Your task to perform on an android device: How do I get to the nearest Starbucks? Image 0: 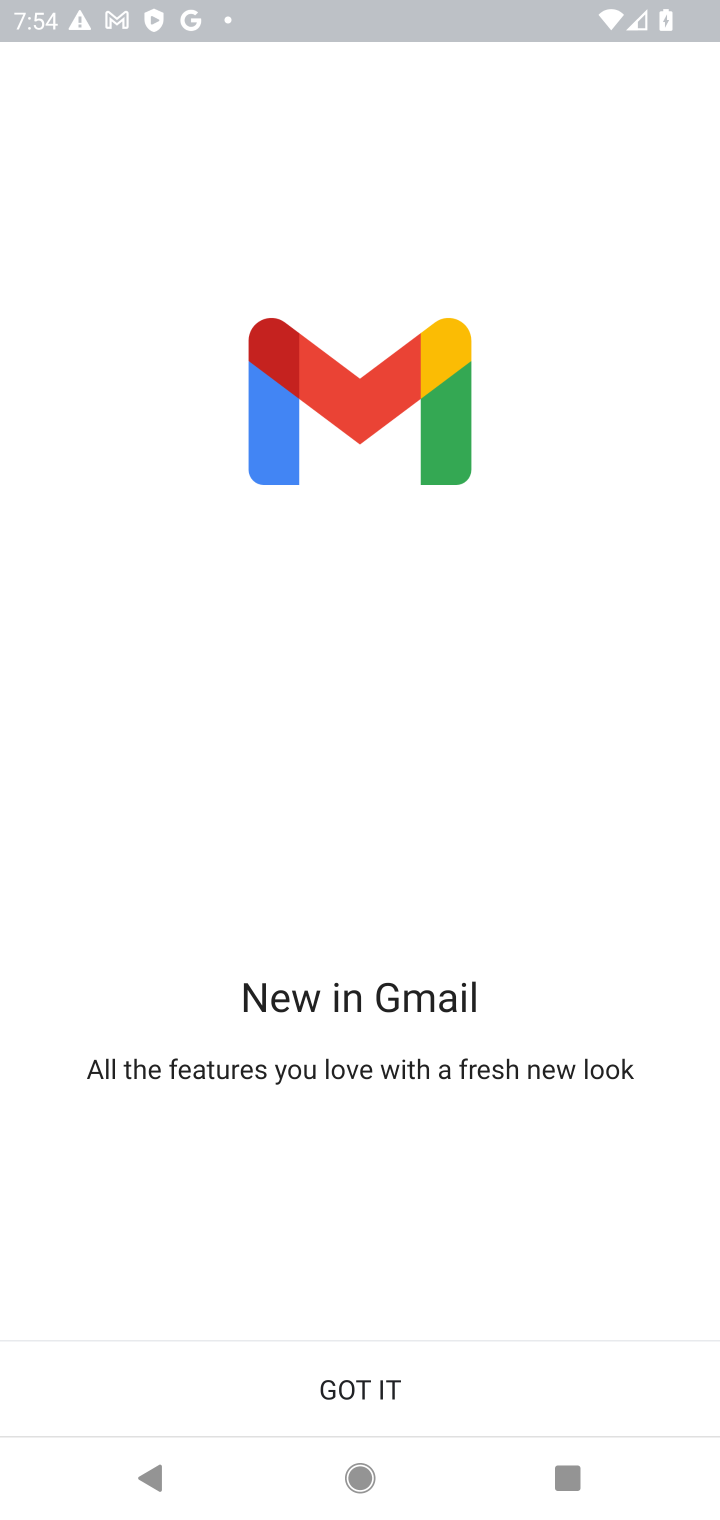
Step 0: press home button
Your task to perform on an android device: How do I get to the nearest Starbucks? Image 1: 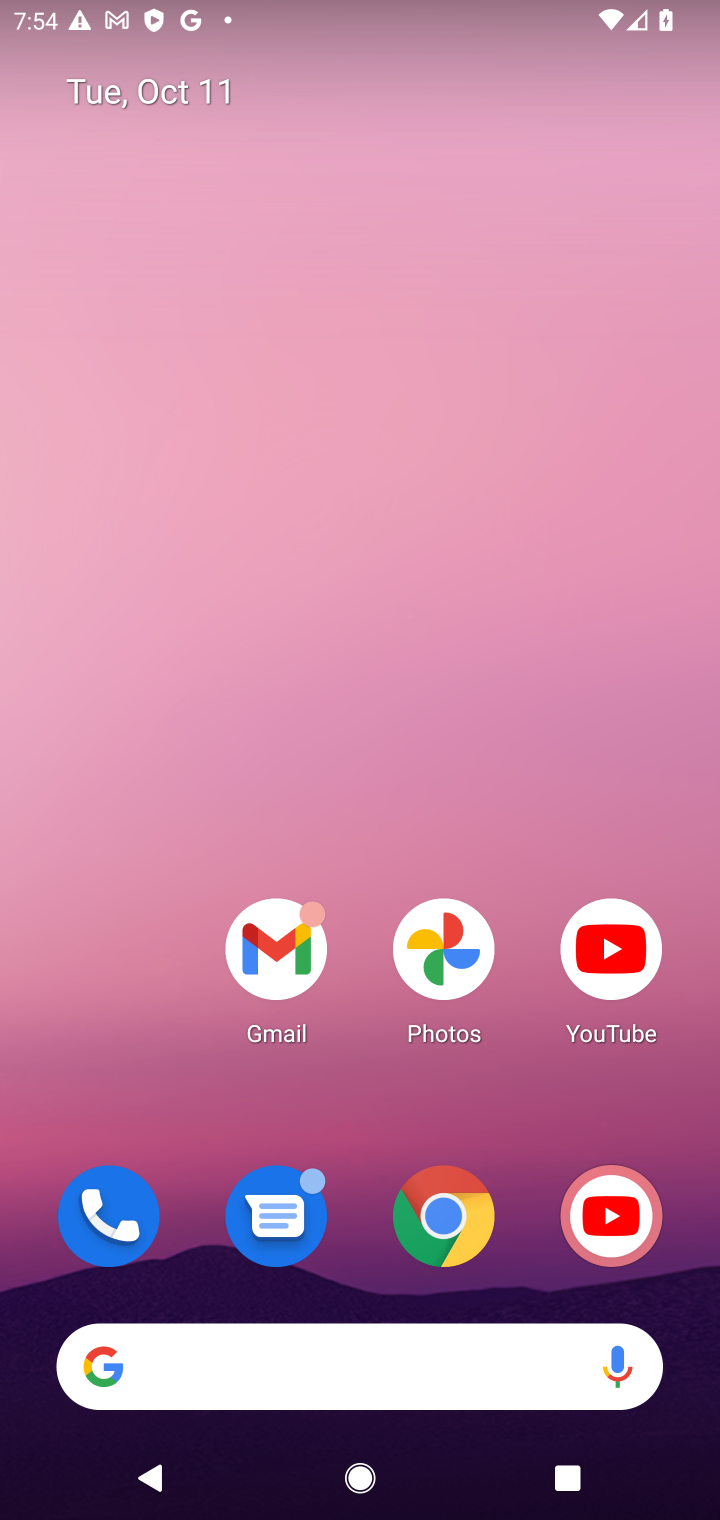
Step 1: click (459, 1223)
Your task to perform on an android device: How do I get to the nearest Starbucks? Image 2: 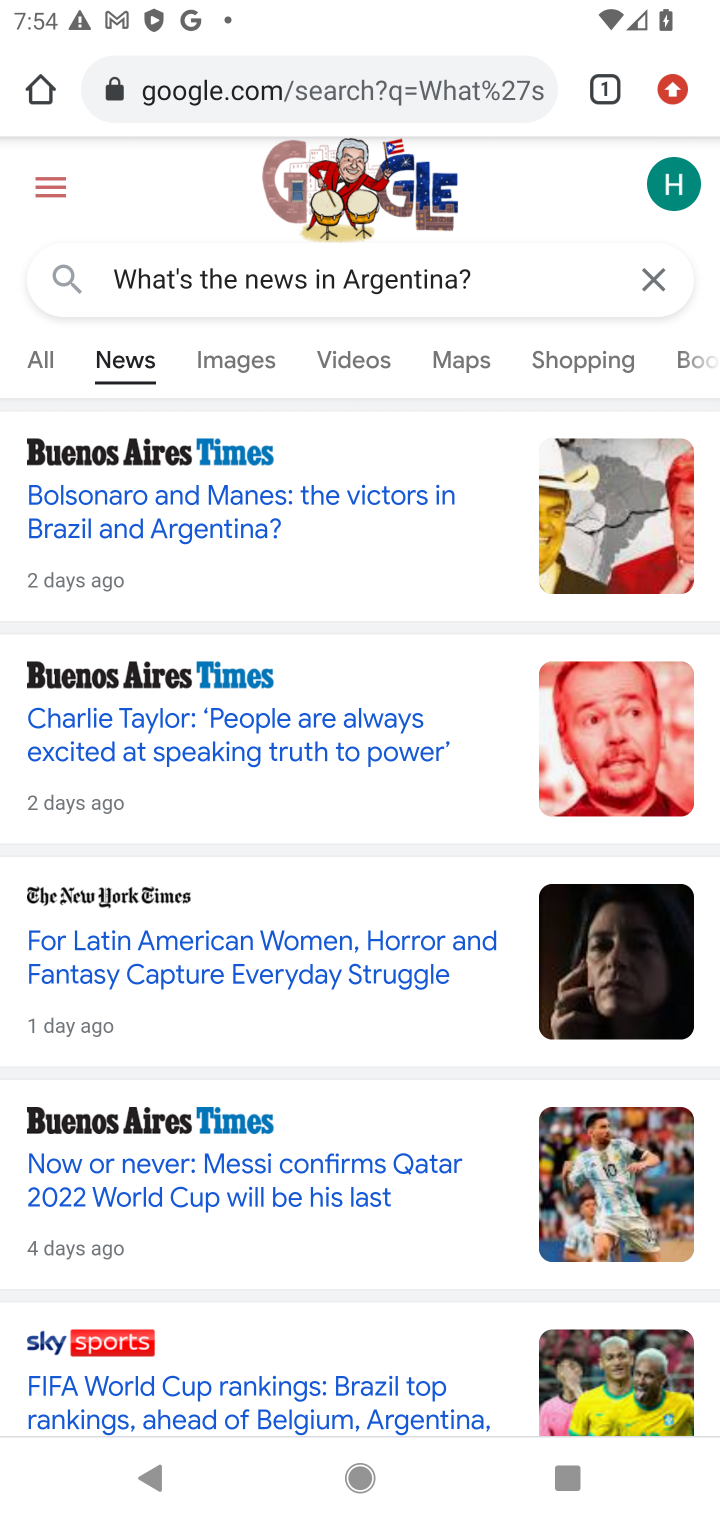
Step 2: click (532, 286)
Your task to perform on an android device: How do I get to the nearest Starbucks? Image 3: 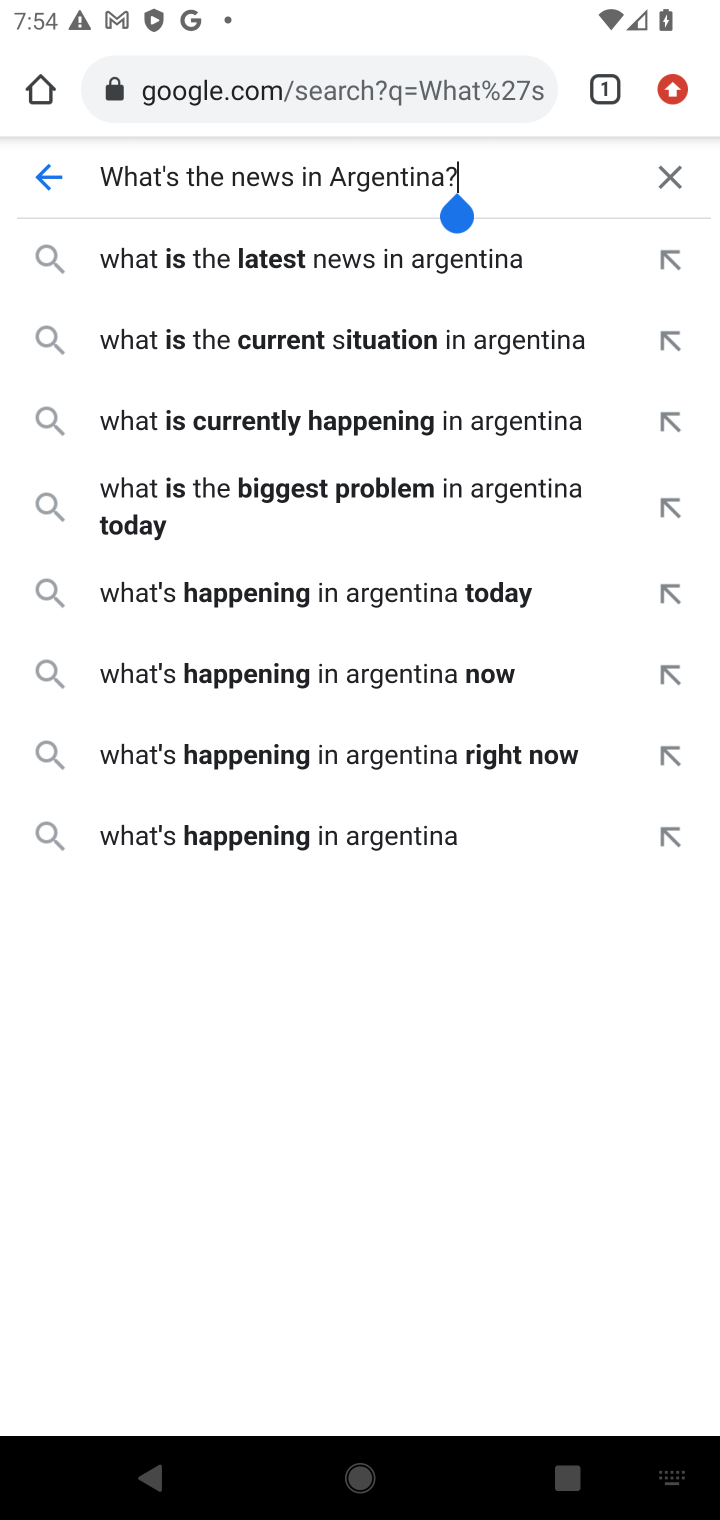
Step 3: click (672, 176)
Your task to perform on an android device: How do I get to the nearest Starbucks? Image 4: 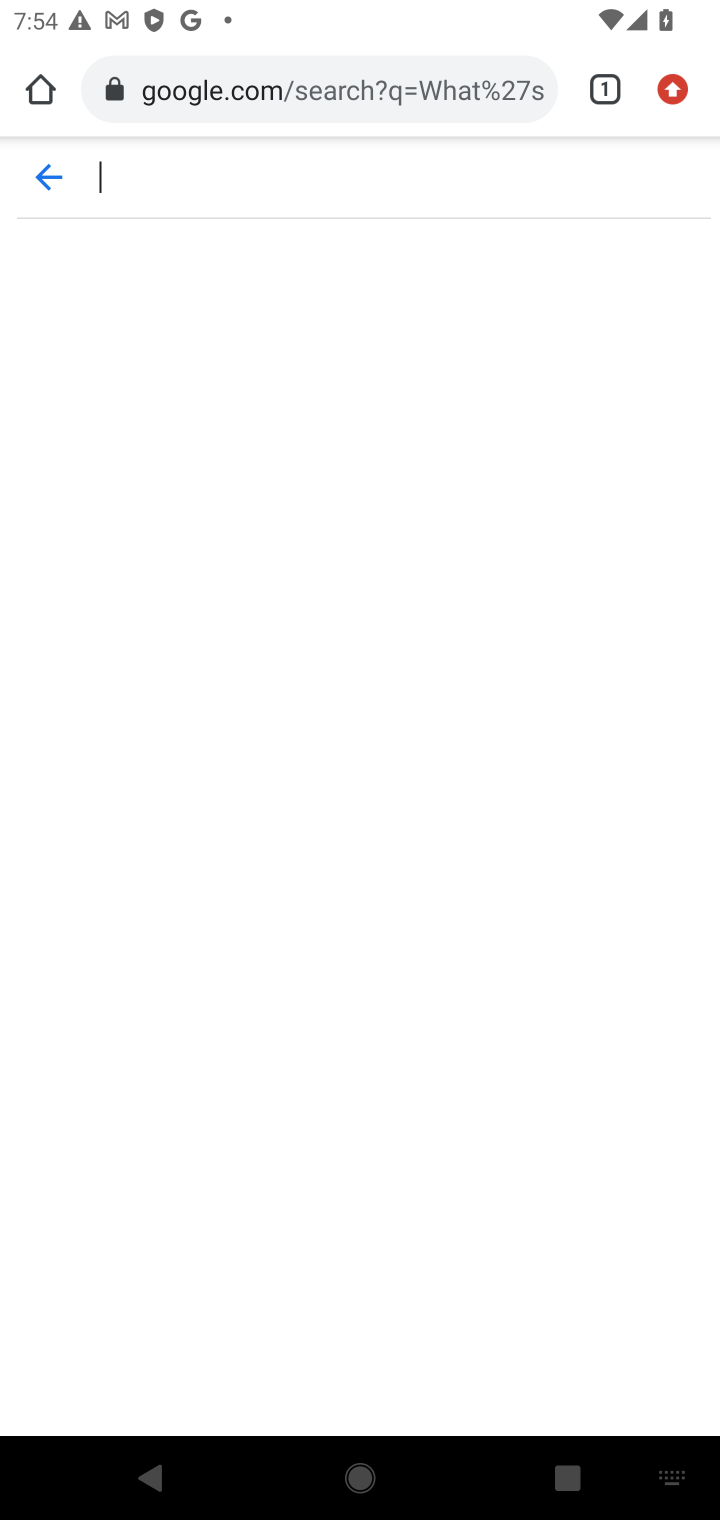
Step 4: type "How do I get to the nearest Starbucks?"
Your task to perform on an android device: How do I get to the nearest Starbucks? Image 5: 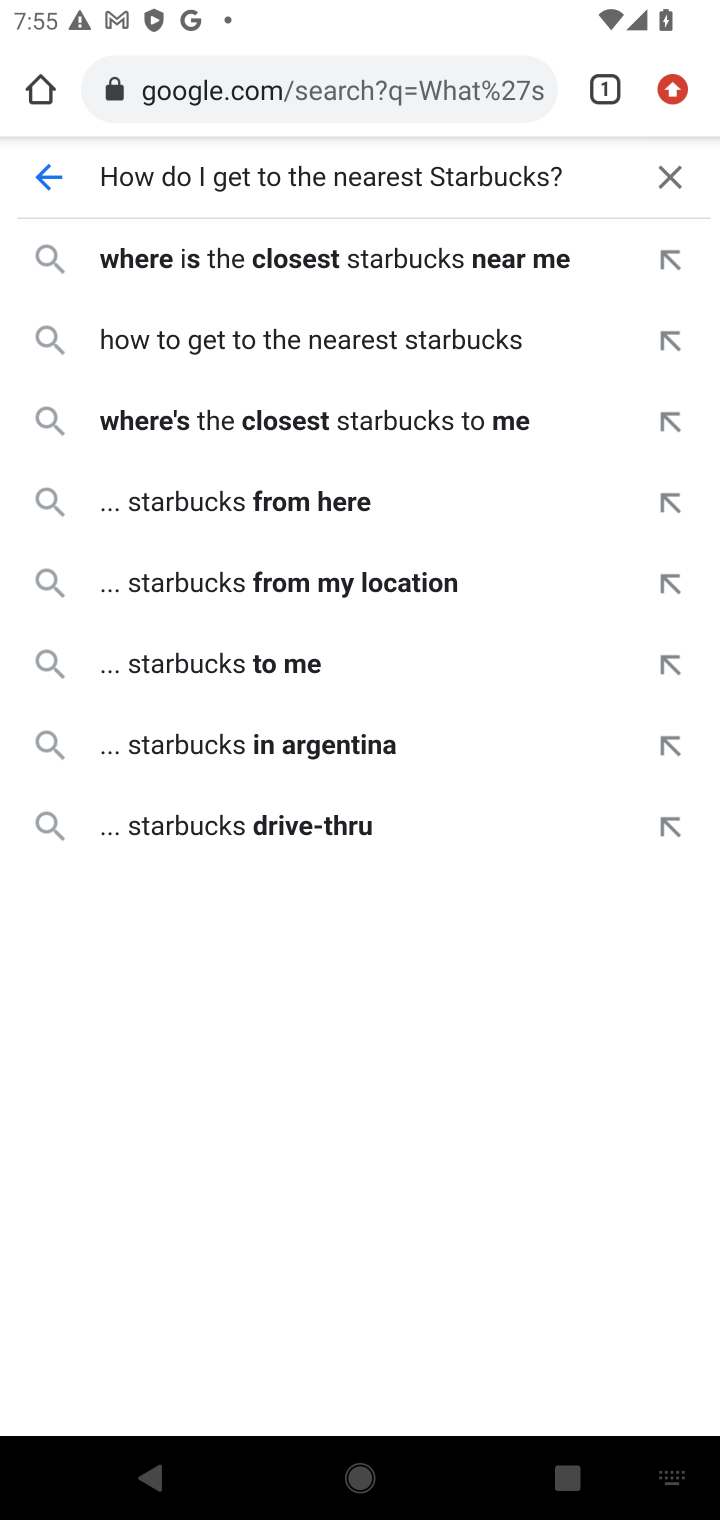
Step 5: press enter
Your task to perform on an android device: How do I get to the nearest Starbucks? Image 6: 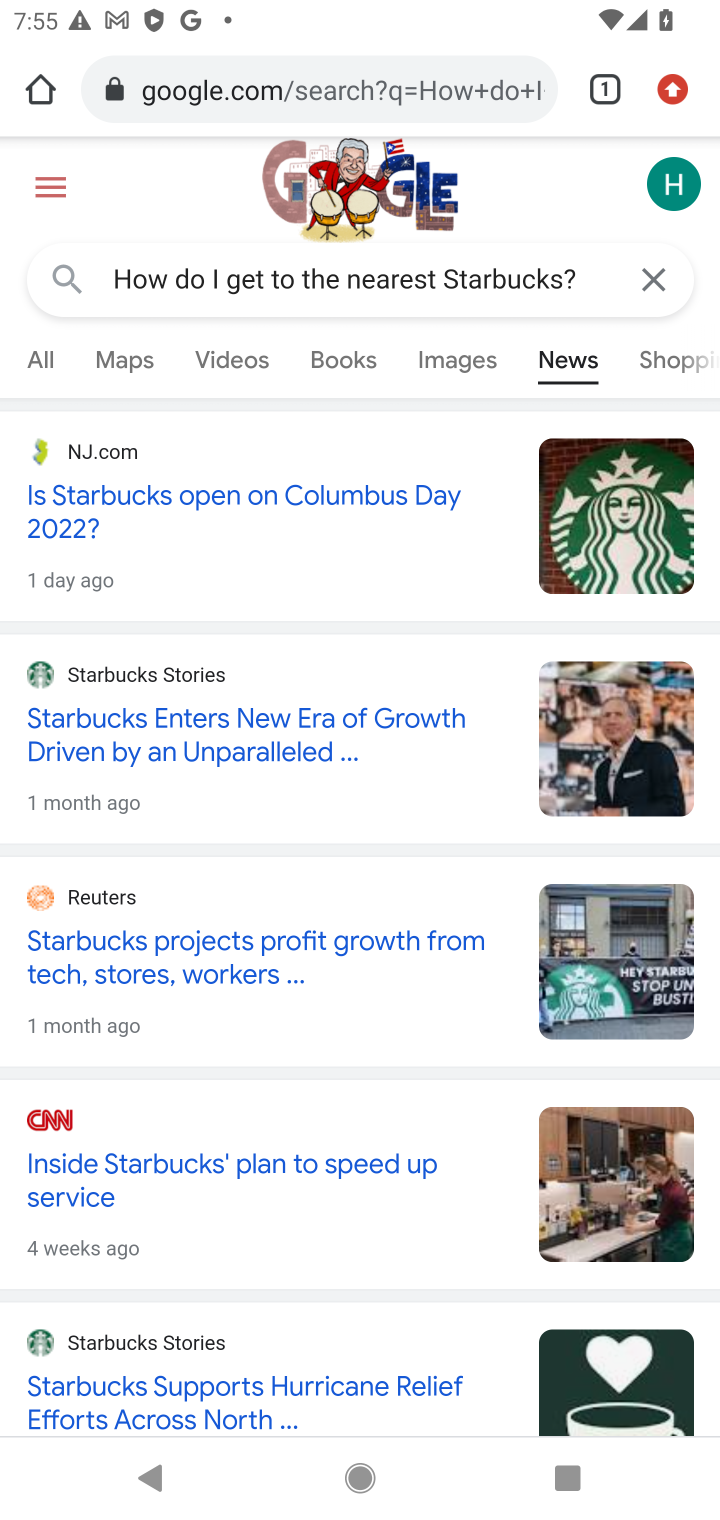
Step 6: click (33, 377)
Your task to perform on an android device: How do I get to the nearest Starbucks? Image 7: 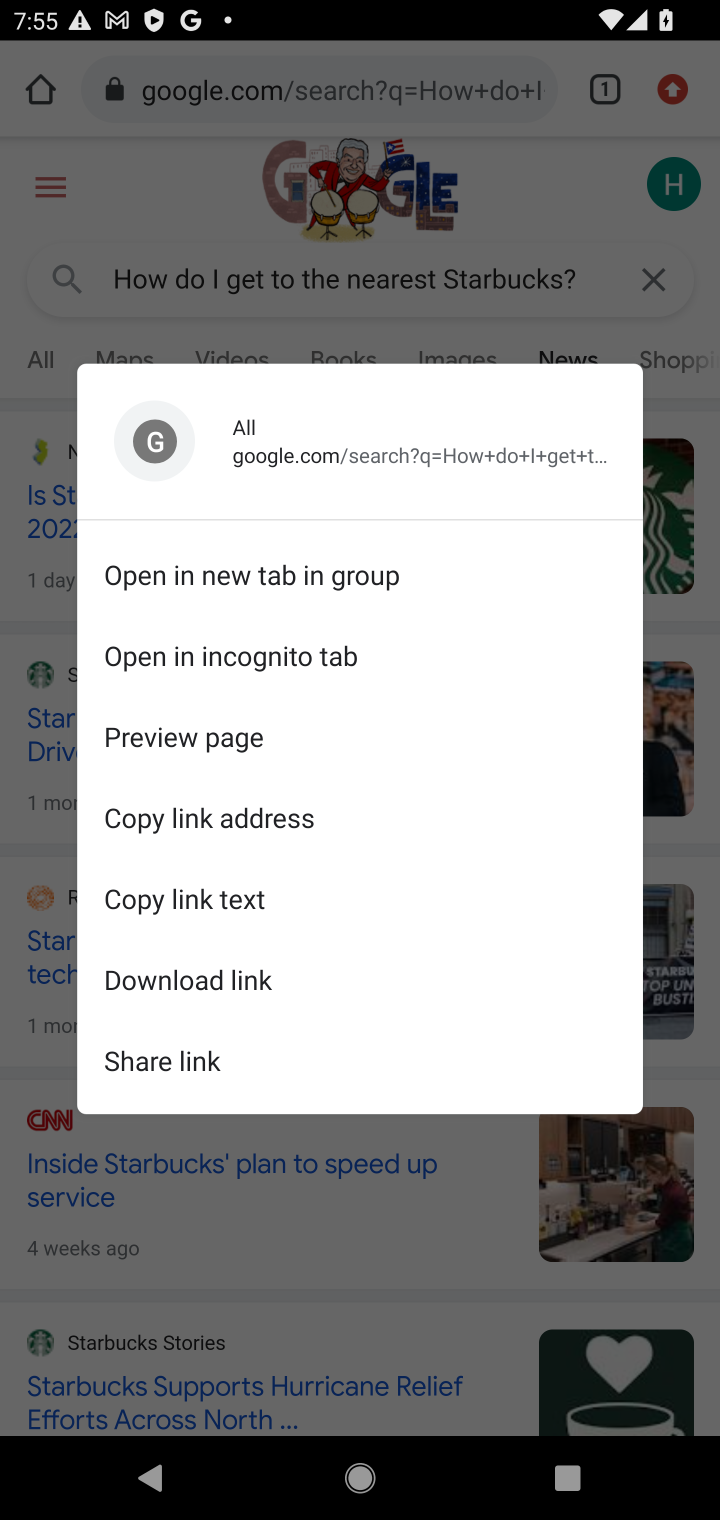
Step 7: press back button
Your task to perform on an android device: How do I get to the nearest Starbucks? Image 8: 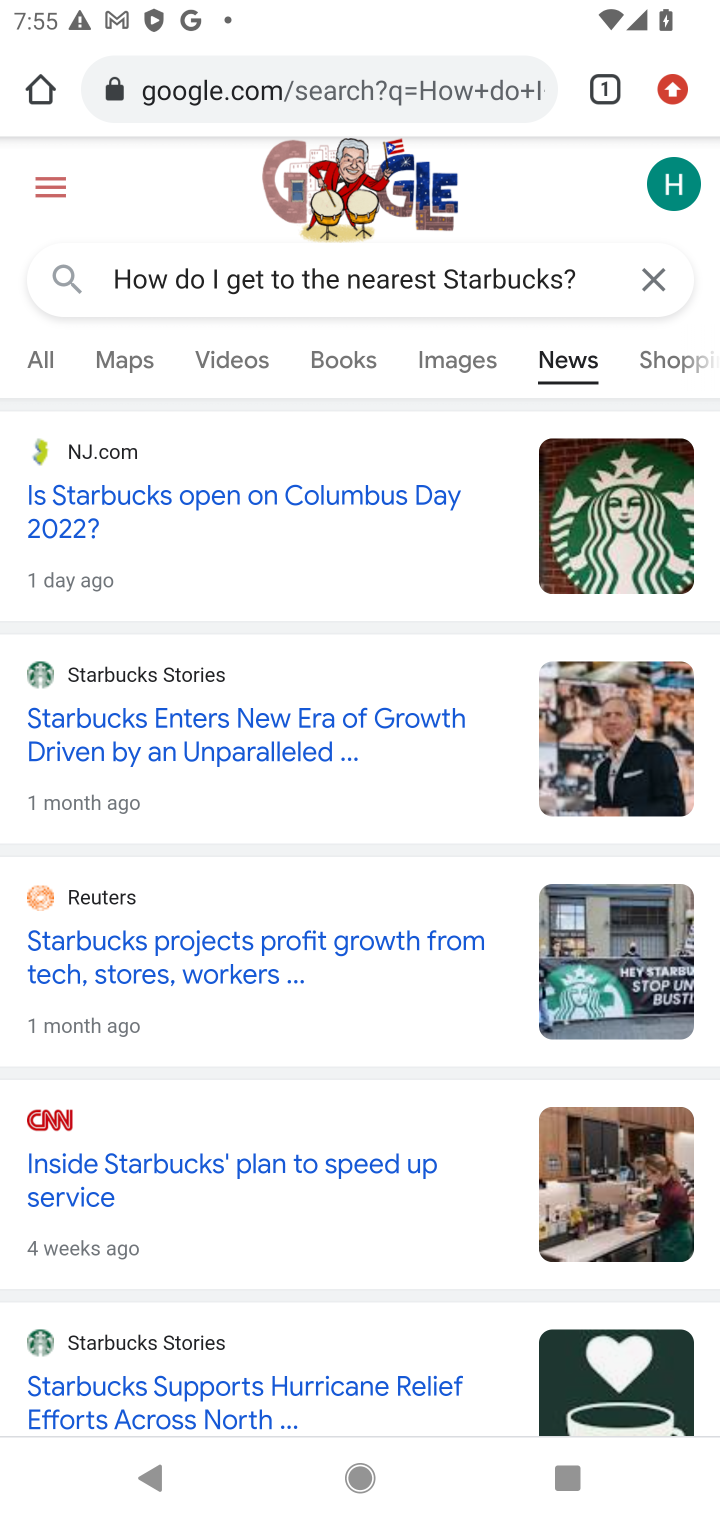
Step 8: click (23, 358)
Your task to perform on an android device: How do I get to the nearest Starbucks? Image 9: 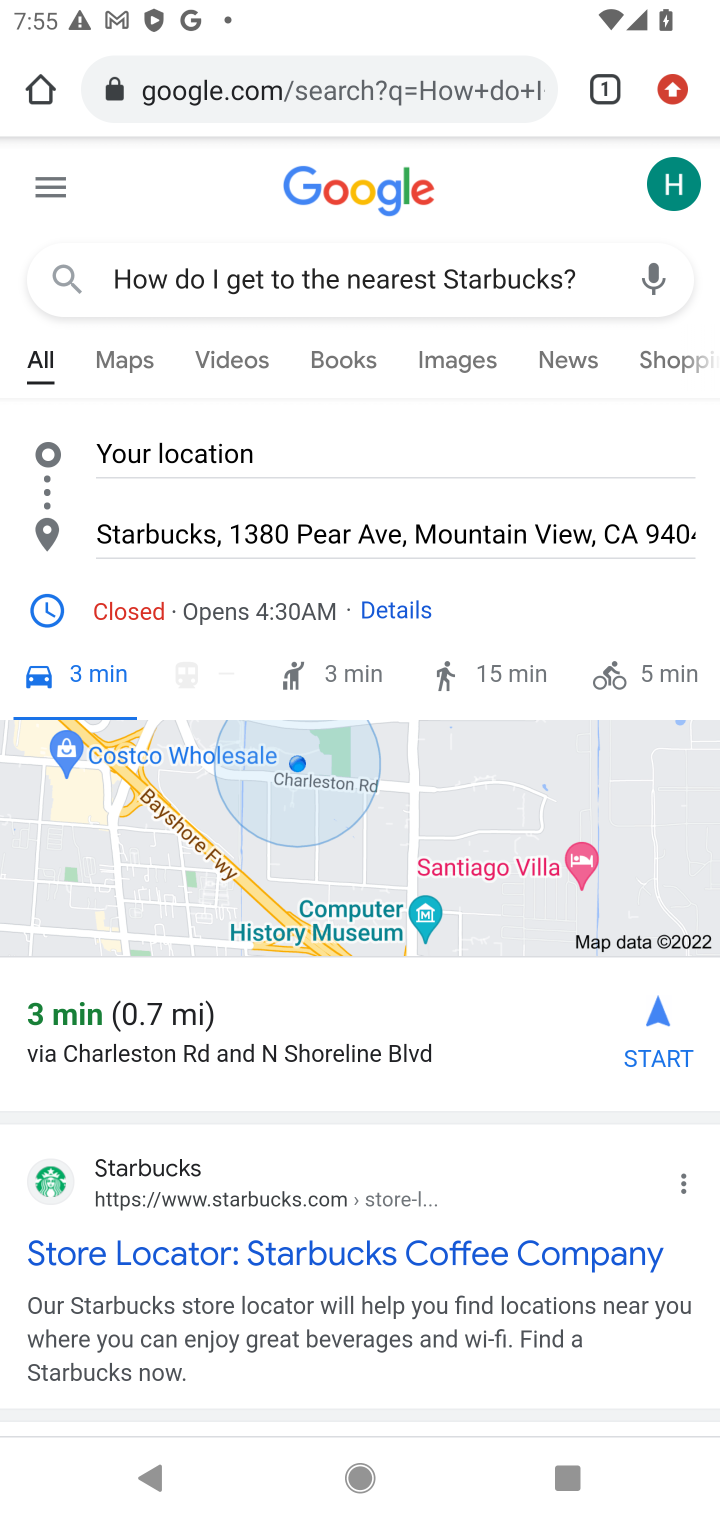
Step 9: task complete